Your task to perform on an android device: check battery use Image 0: 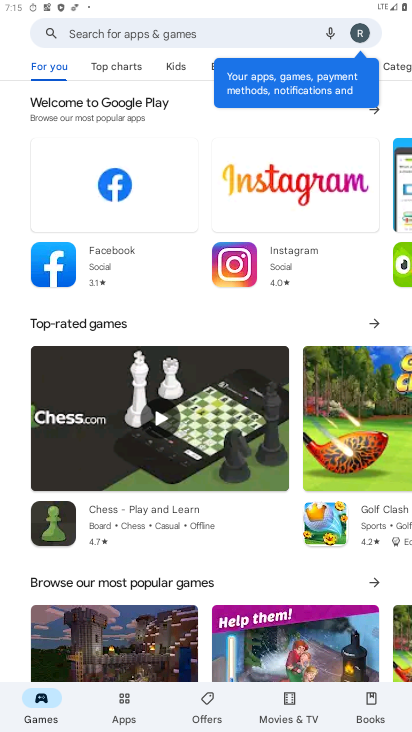
Step 0: press home button
Your task to perform on an android device: check battery use Image 1: 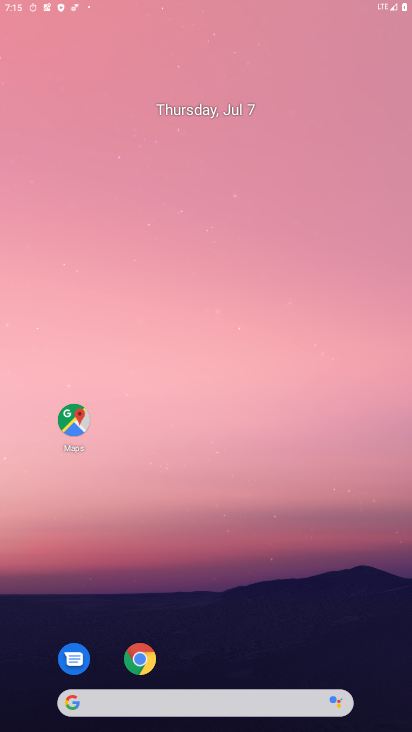
Step 1: drag from (373, 674) to (195, 85)
Your task to perform on an android device: check battery use Image 2: 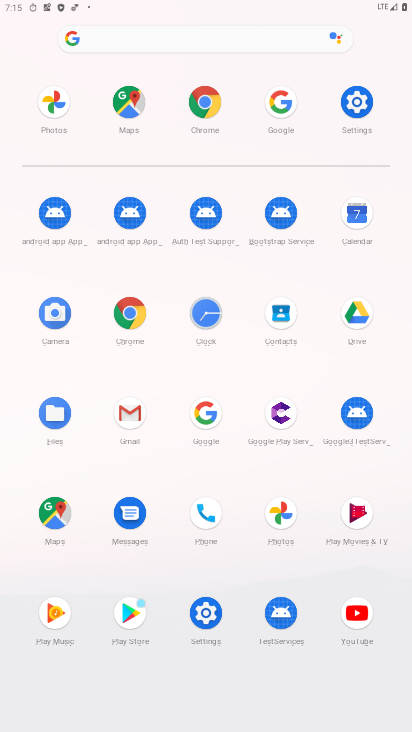
Step 2: click (355, 97)
Your task to perform on an android device: check battery use Image 3: 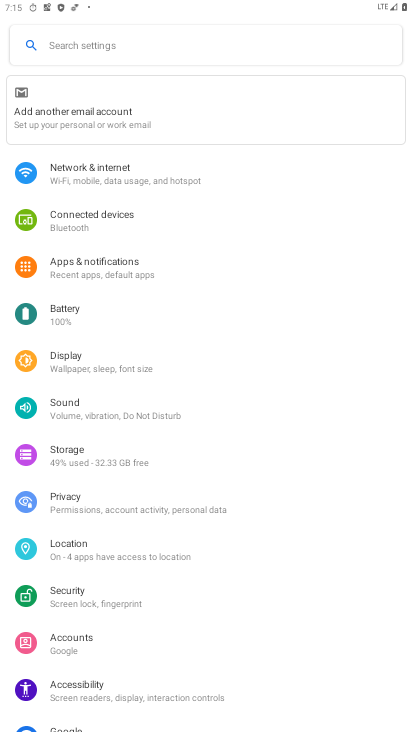
Step 3: click (114, 321)
Your task to perform on an android device: check battery use Image 4: 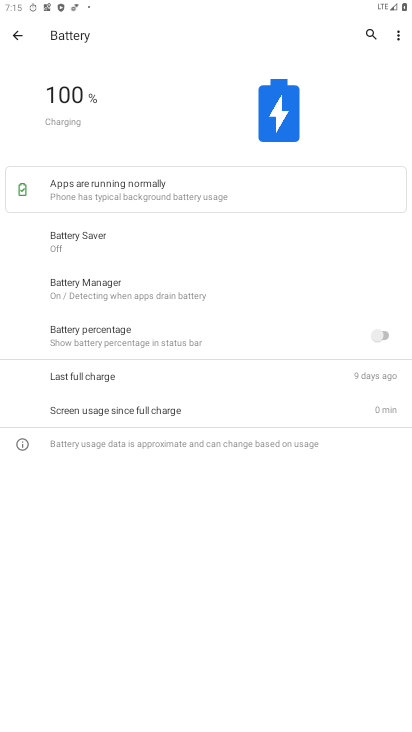
Step 4: click (392, 25)
Your task to perform on an android device: check battery use Image 5: 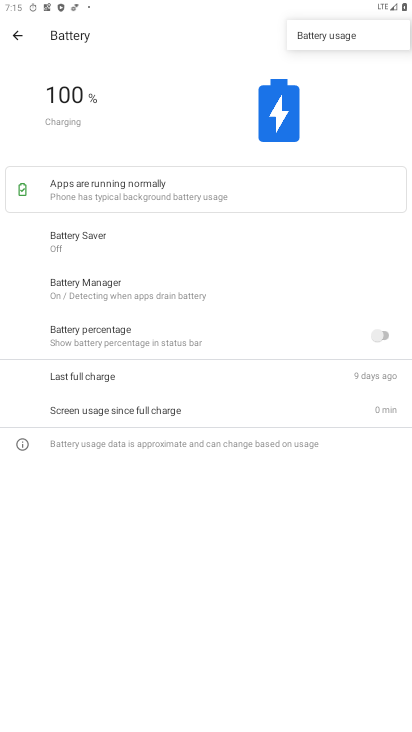
Step 5: click (335, 36)
Your task to perform on an android device: check battery use Image 6: 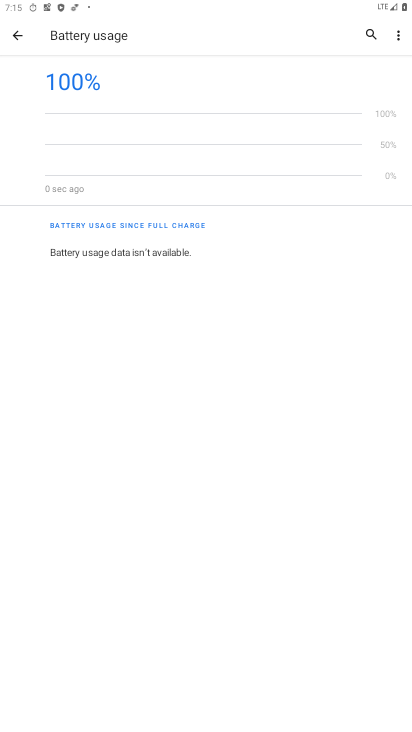
Step 6: task complete